Your task to perform on an android device: Open Chrome and go to settings Image 0: 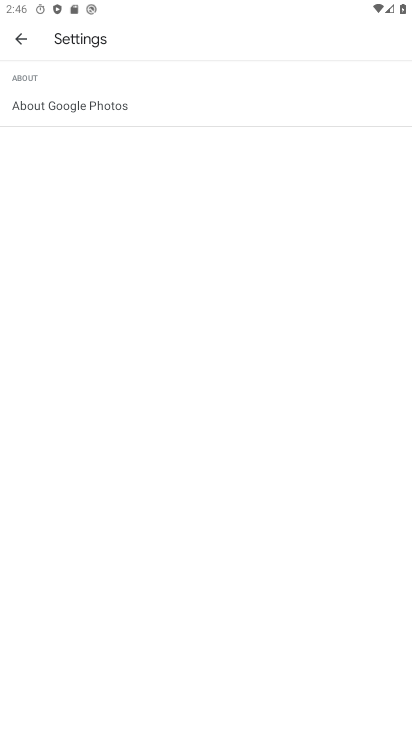
Step 0: press home button
Your task to perform on an android device: Open Chrome and go to settings Image 1: 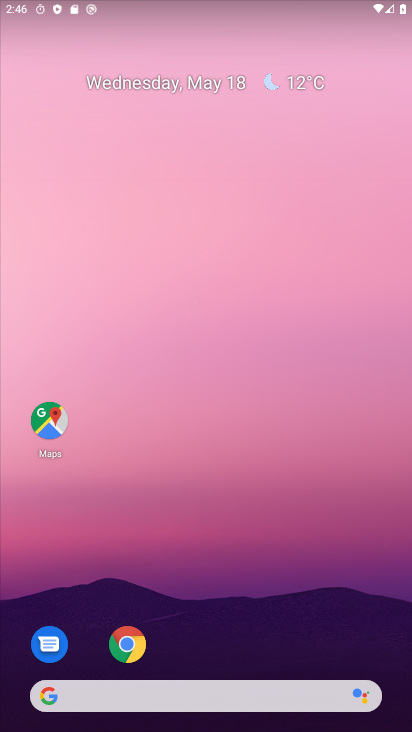
Step 1: click (130, 634)
Your task to perform on an android device: Open Chrome and go to settings Image 2: 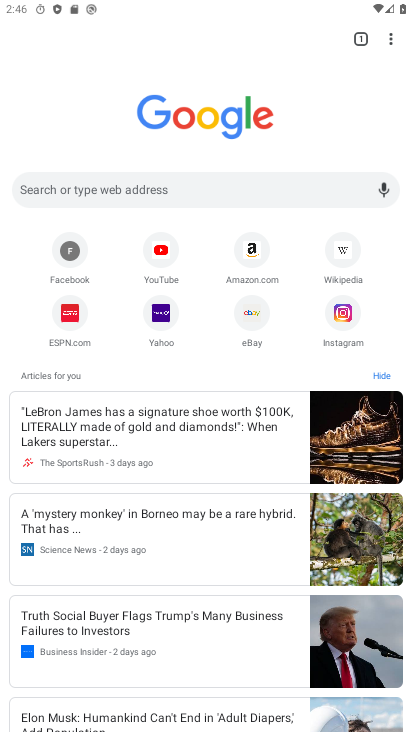
Step 2: click (387, 35)
Your task to perform on an android device: Open Chrome and go to settings Image 3: 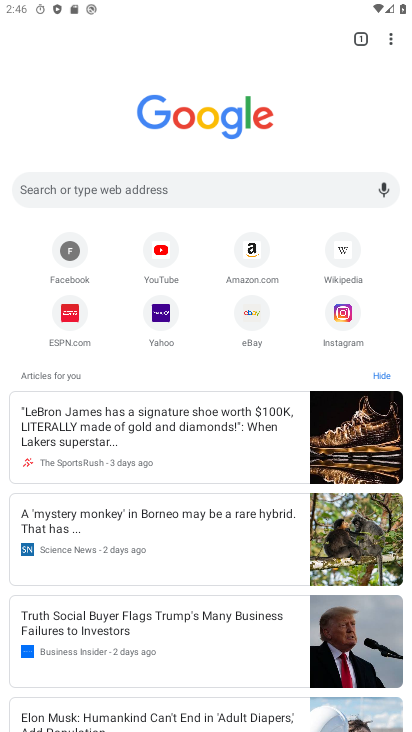
Step 3: click (390, 40)
Your task to perform on an android device: Open Chrome and go to settings Image 4: 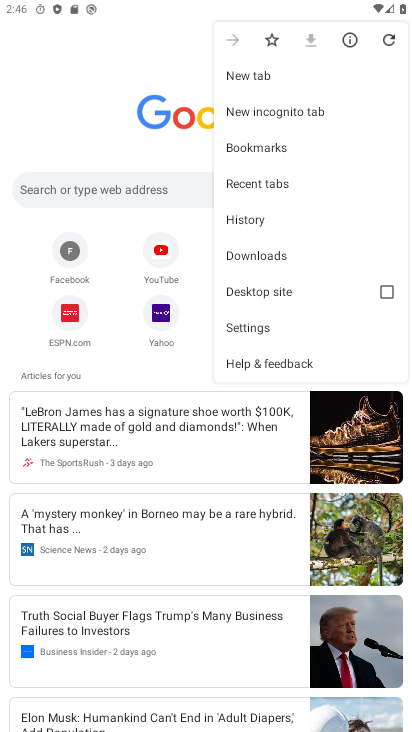
Step 4: click (230, 327)
Your task to perform on an android device: Open Chrome and go to settings Image 5: 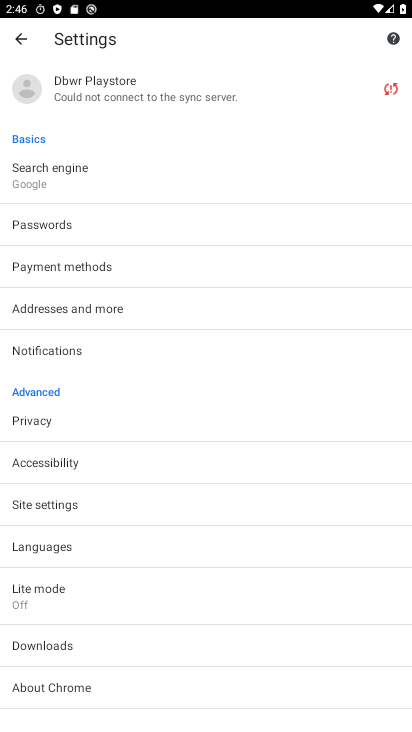
Step 5: task complete